Your task to perform on an android device: find which apps use the phone's location Image 0: 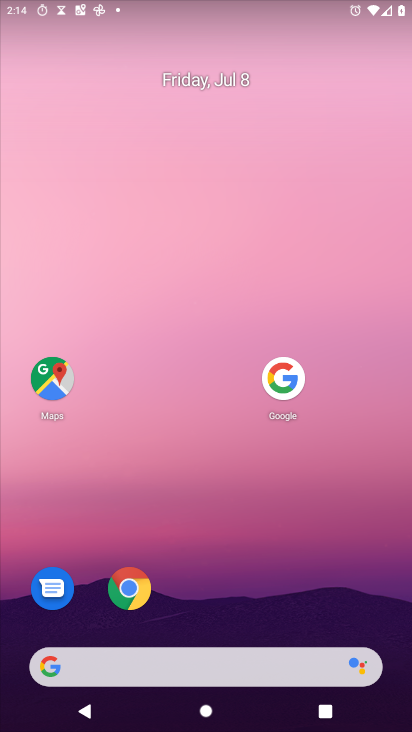
Step 0: drag from (156, 665) to (263, 103)
Your task to perform on an android device: find which apps use the phone's location Image 1: 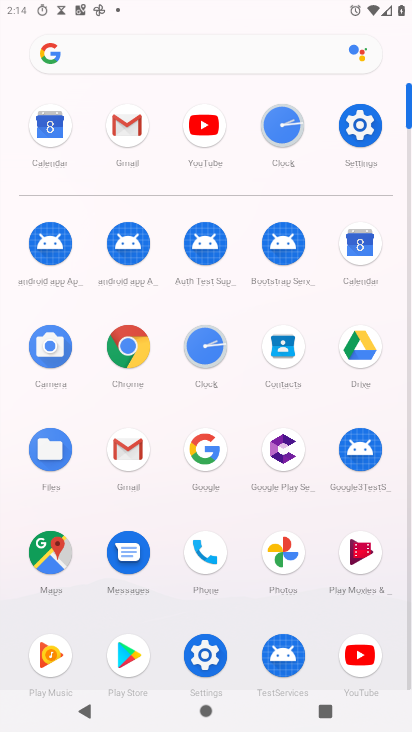
Step 1: click (357, 126)
Your task to perform on an android device: find which apps use the phone's location Image 2: 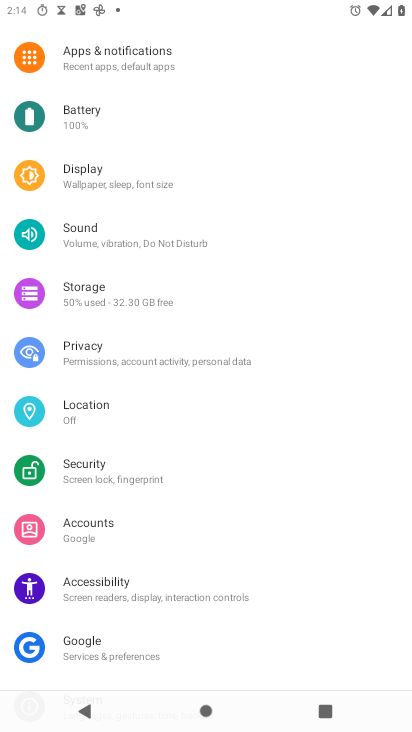
Step 2: click (95, 414)
Your task to perform on an android device: find which apps use the phone's location Image 3: 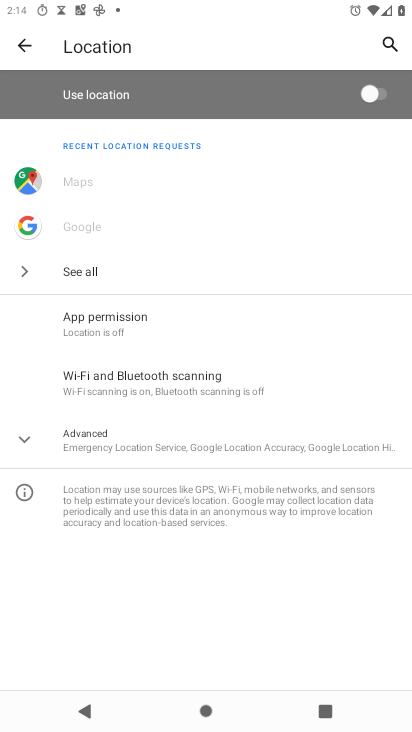
Step 3: click (91, 323)
Your task to perform on an android device: find which apps use the phone's location Image 4: 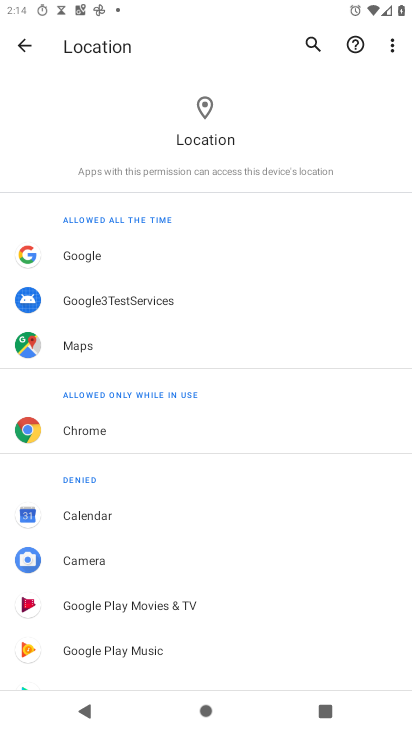
Step 4: drag from (163, 604) to (236, 293)
Your task to perform on an android device: find which apps use the phone's location Image 5: 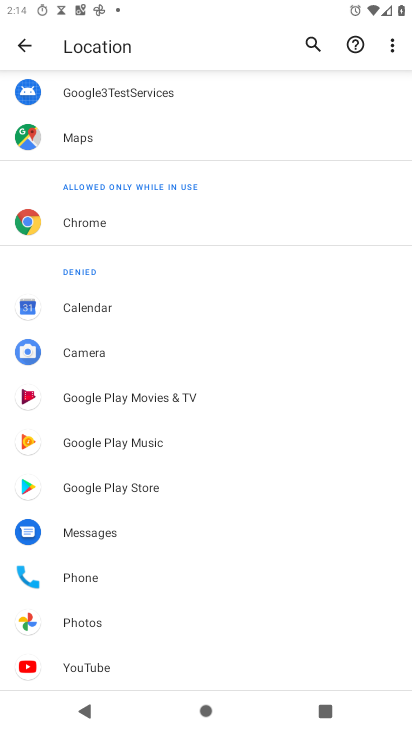
Step 5: click (88, 583)
Your task to perform on an android device: find which apps use the phone's location Image 6: 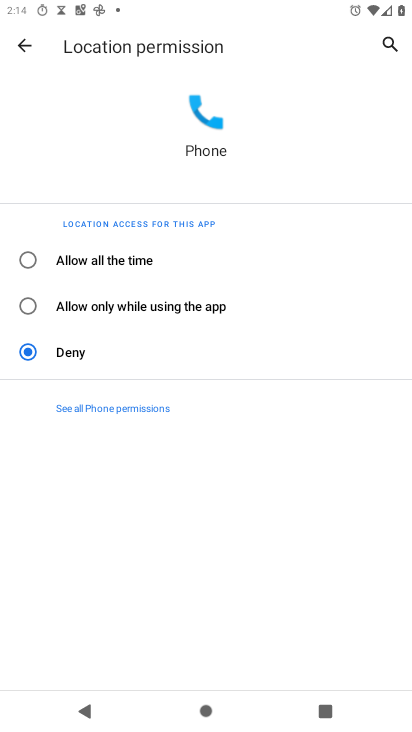
Step 6: task complete